Your task to perform on an android device: When is my next appointment? Image 0: 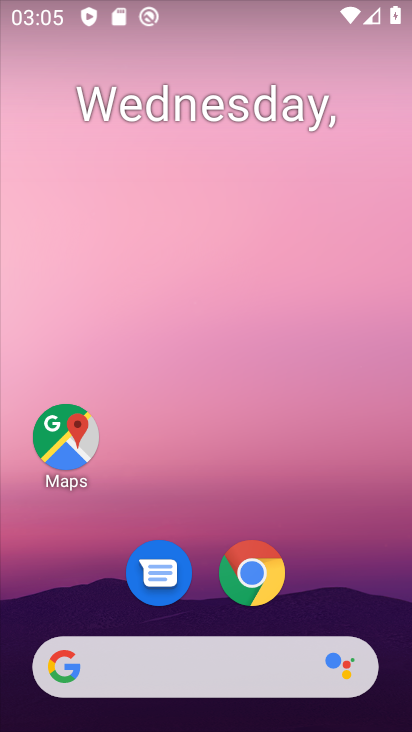
Step 0: drag from (206, 697) to (192, 127)
Your task to perform on an android device: When is my next appointment? Image 1: 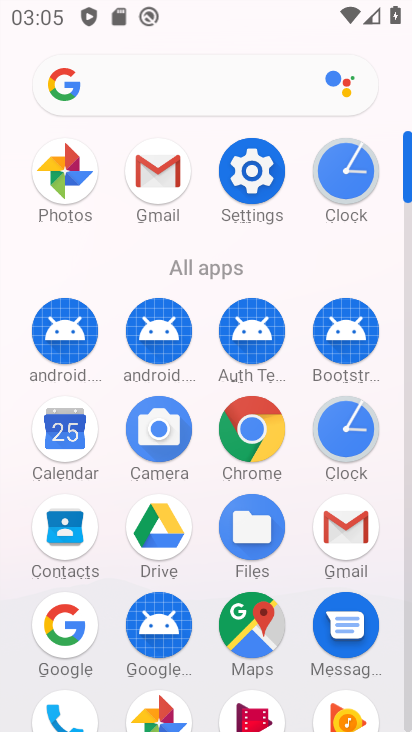
Step 1: click (59, 430)
Your task to perform on an android device: When is my next appointment? Image 2: 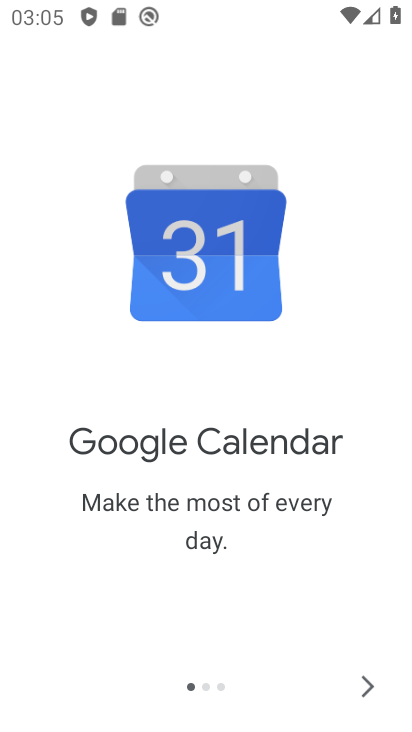
Step 2: click (365, 682)
Your task to perform on an android device: When is my next appointment? Image 3: 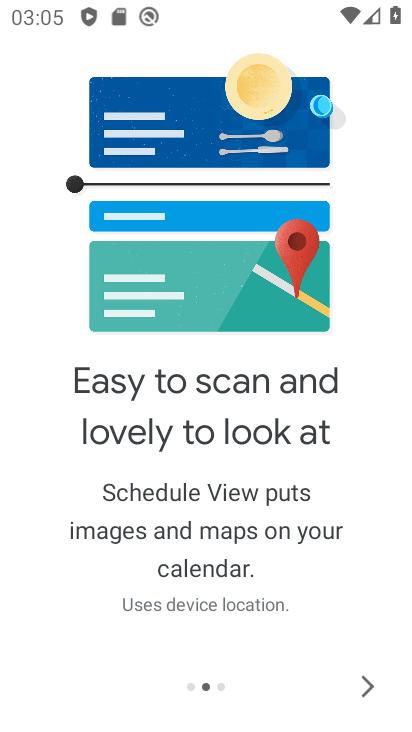
Step 3: click (365, 682)
Your task to perform on an android device: When is my next appointment? Image 4: 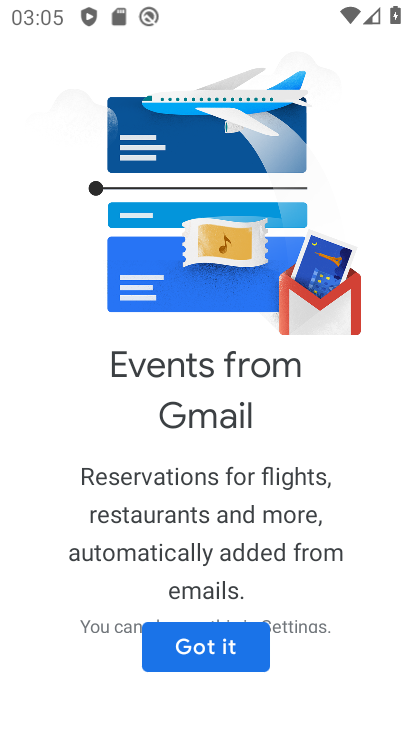
Step 4: click (240, 649)
Your task to perform on an android device: When is my next appointment? Image 5: 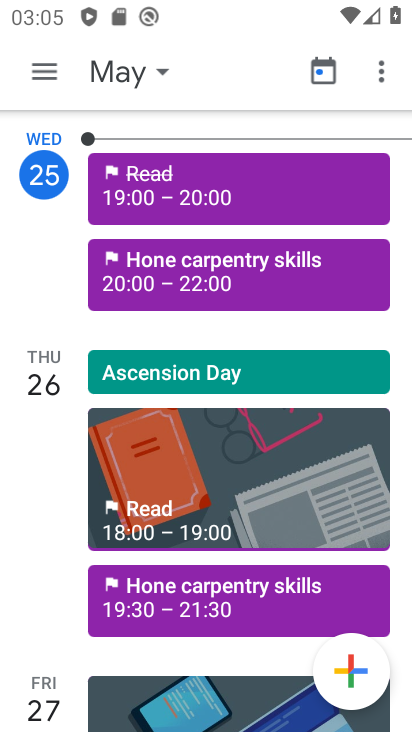
Step 5: click (155, 68)
Your task to perform on an android device: When is my next appointment? Image 6: 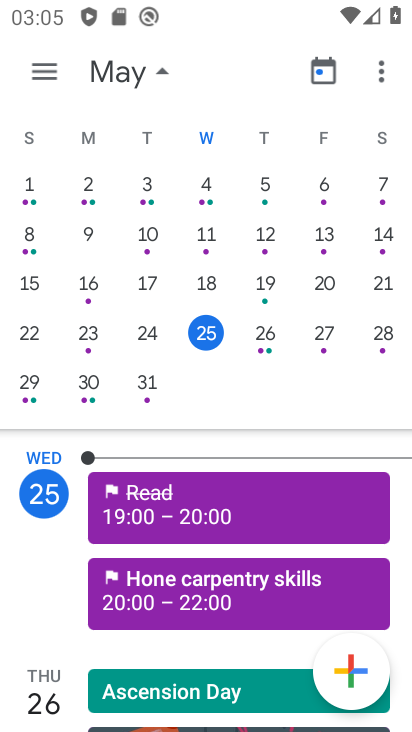
Step 6: click (264, 333)
Your task to perform on an android device: When is my next appointment? Image 7: 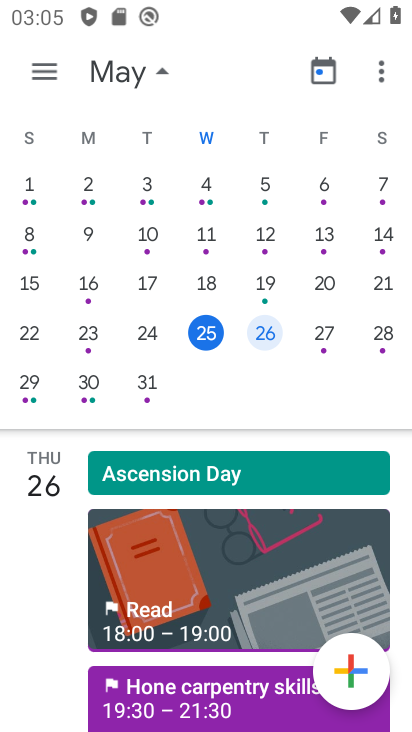
Step 7: click (261, 328)
Your task to perform on an android device: When is my next appointment? Image 8: 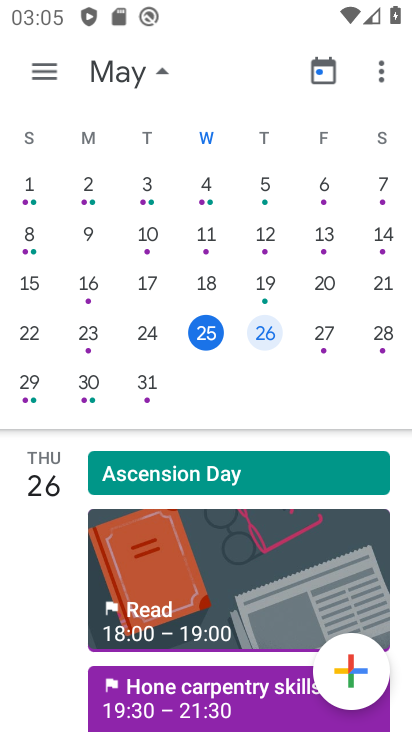
Step 8: click (158, 69)
Your task to perform on an android device: When is my next appointment? Image 9: 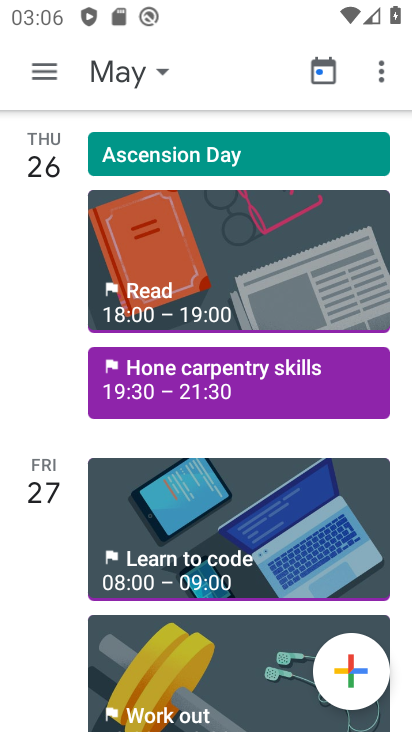
Step 9: task complete